Your task to perform on an android device: Go to Google Image 0: 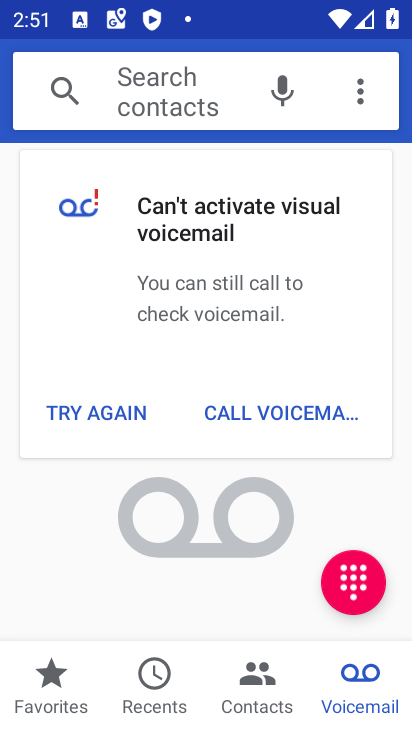
Step 0: press home button
Your task to perform on an android device: Go to Google Image 1: 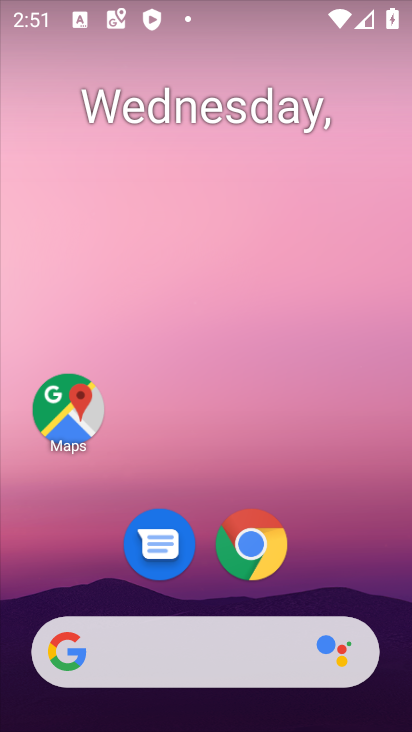
Step 1: click (253, 546)
Your task to perform on an android device: Go to Google Image 2: 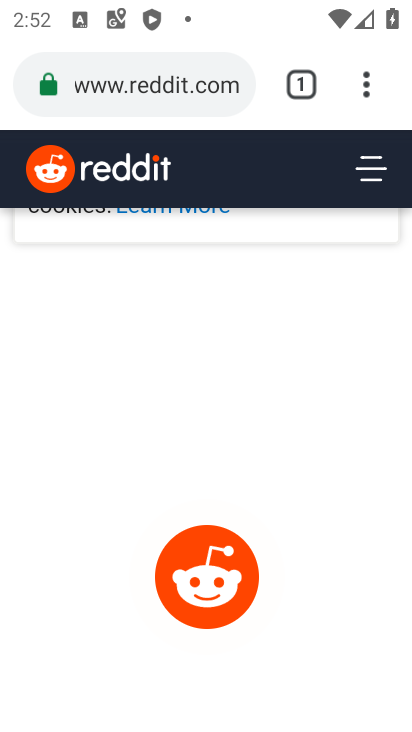
Step 2: task complete